Your task to perform on an android device: allow cookies in the chrome app Image 0: 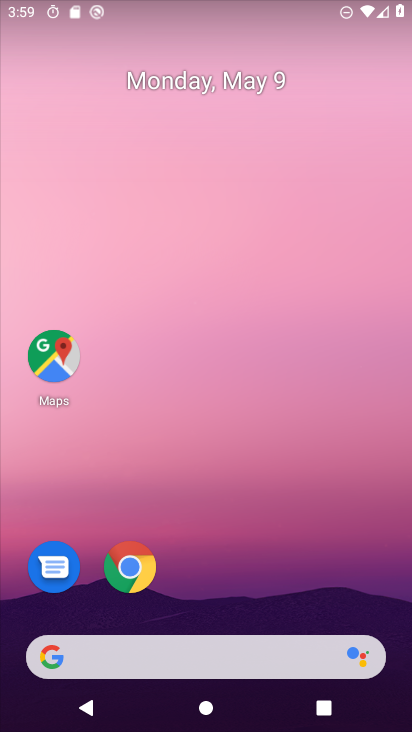
Step 0: click (129, 563)
Your task to perform on an android device: allow cookies in the chrome app Image 1: 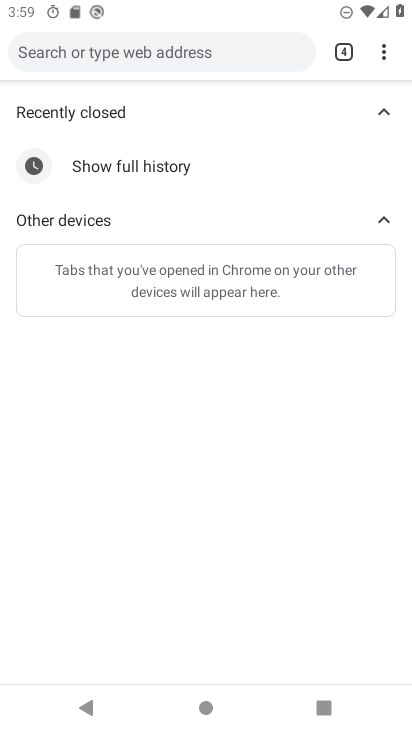
Step 1: click (382, 50)
Your task to perform on an android device: allow cookies in the chrome app Image 2: 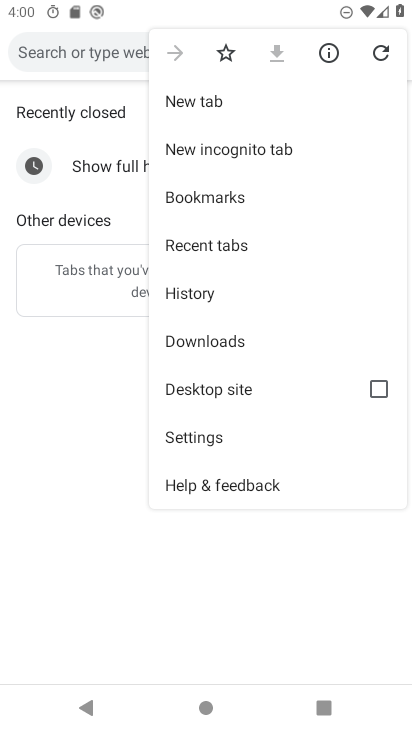
Step 2: click (213, 437)
Your task to perform on an android device: allow cookies in the chrome app Image 3: 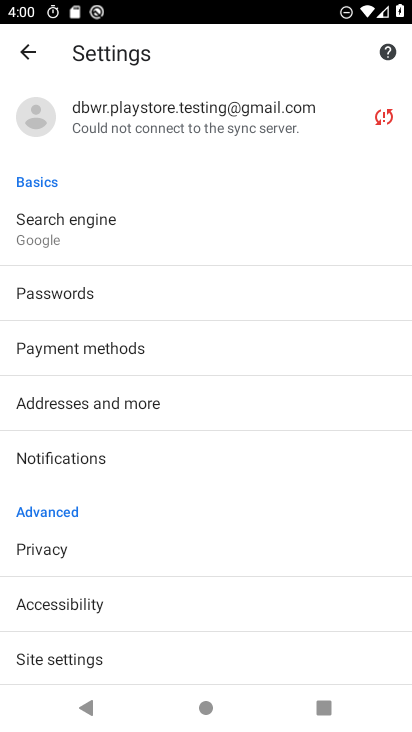
Step 3: click (108, 663)
Your task to perform on an android device: allow cookies in the chrome app Image 4: 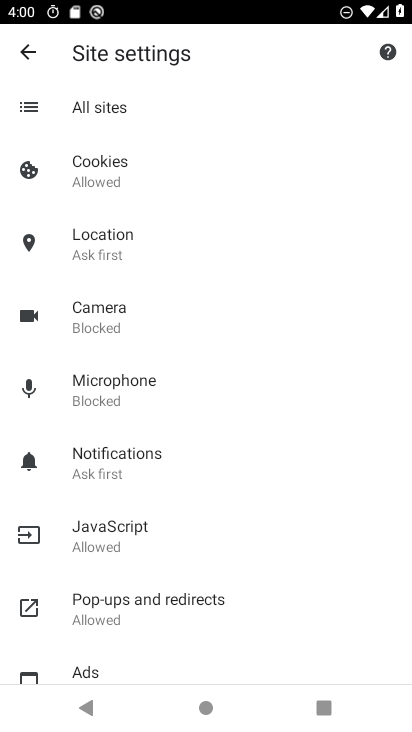
Step 4: click (107, 164)
Your task to perform on an android device: allow cookies in the chrome app Image 5: 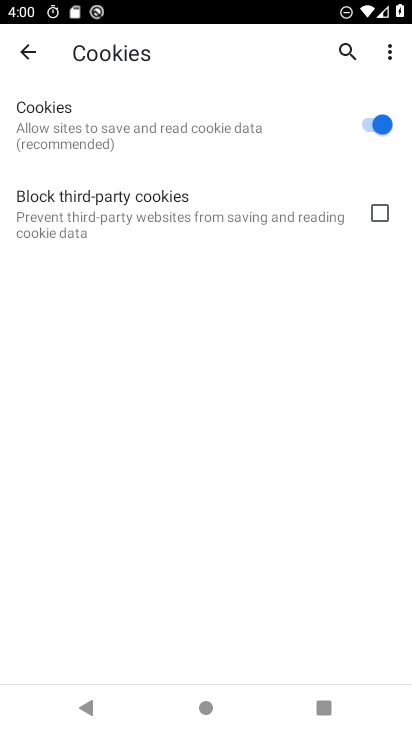
Step 5: task complete